Your task to perform on an android device: What's on my calendar today? Image 0: 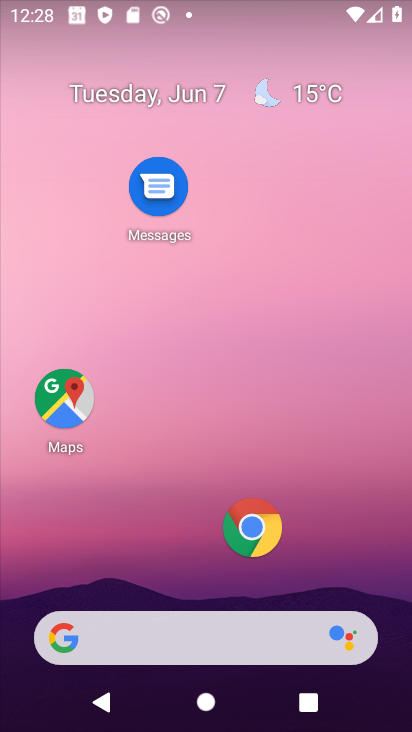
Step 0: drag from (209, 610) to (205, 169)
Your task to perform on an android device: What's on my calendar today? Image 1: 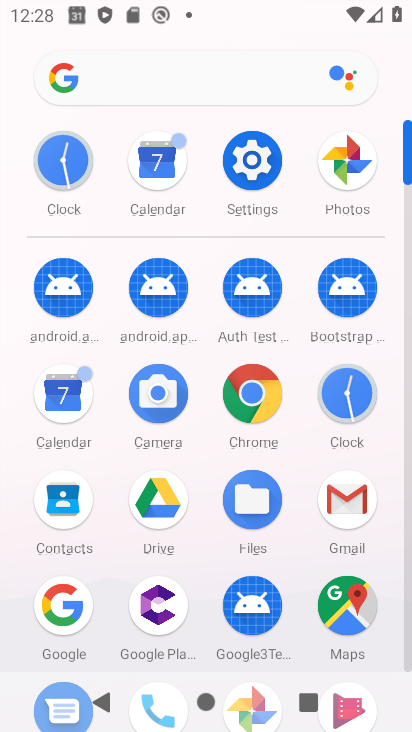
Step 1: click (61, 405)
Your task to perform on an android device: What's on my calendar today? Image 2: 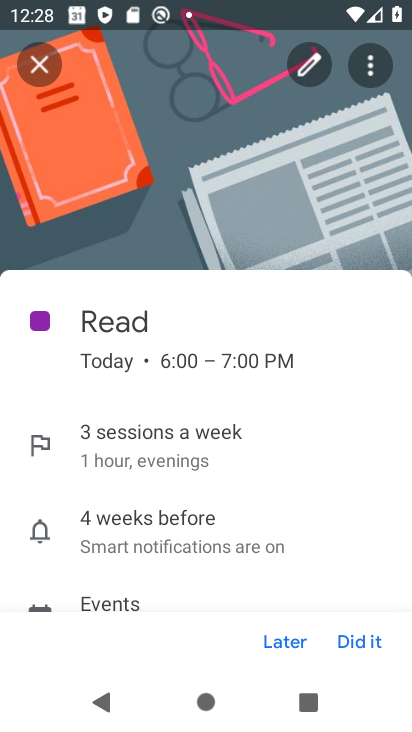
Step 2: task complete